Your task to perform on an android device: Go to Yahoo.com Image 0: 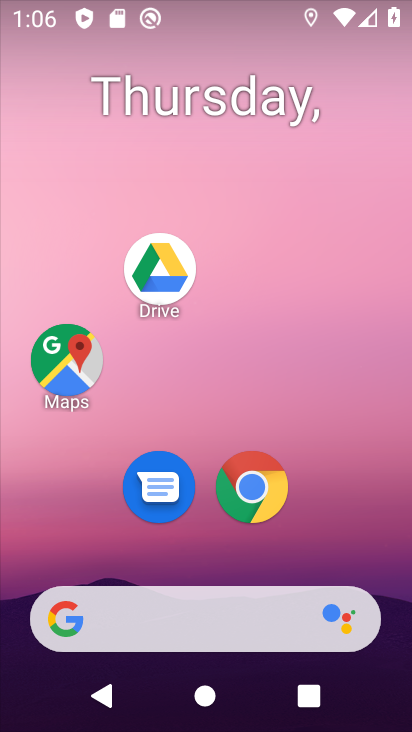
Step 0: click (249, 493)
Your task to perform on an android device: Go to Yahoo.com Image 1: 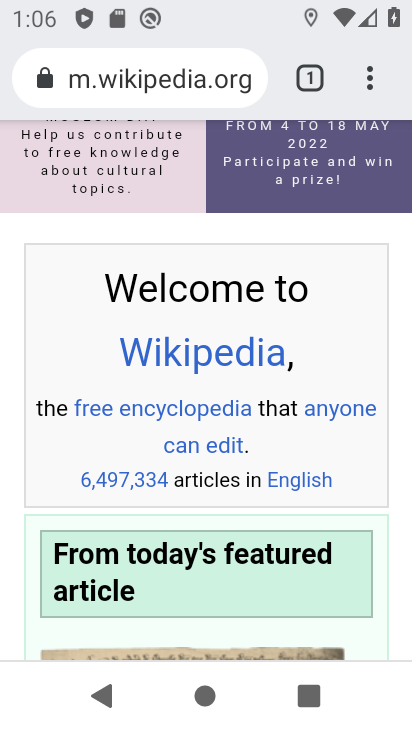
Step 1: click (302, 76)
Your task to perform on an android device: Go to Yahoo.com Image 2: 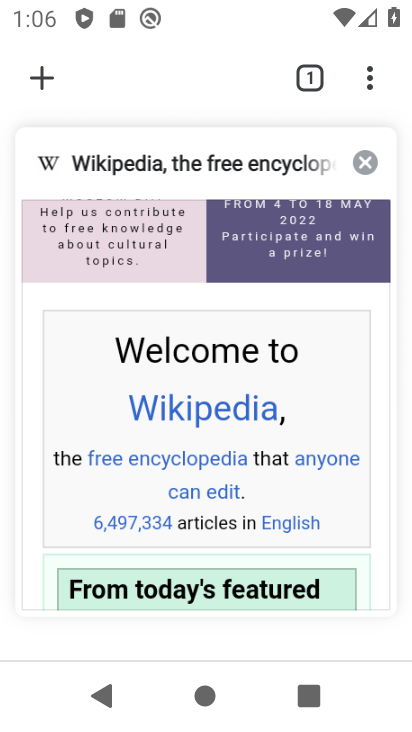
Step 2: click (48, 82)
Your task to perform on an android device: Go to Yahoo.com Image 3: 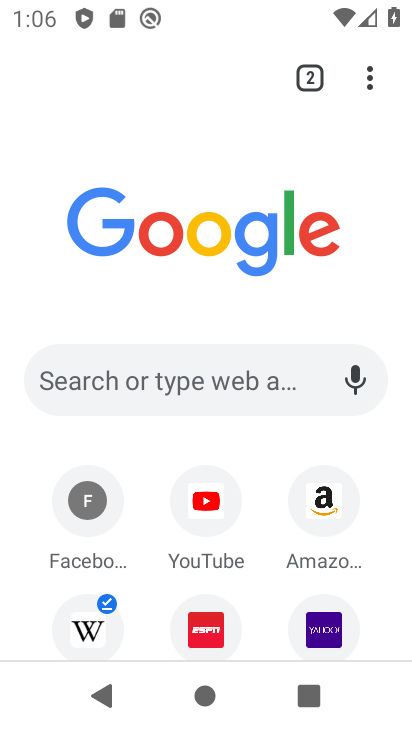
Step 3: click (315, 617)
Your task to perform on an android device: Go to Yahoo.com Image 4: 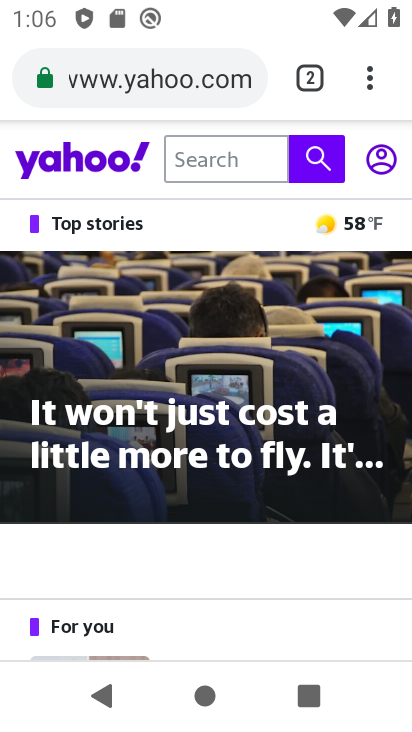
Step 4: task complete